Your task to perform on an android device: find which apps use the phone's location Image 0: 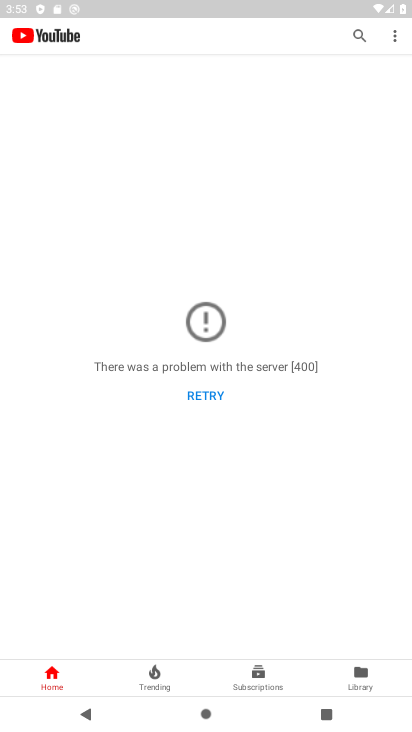
Step 0: press home button
Your task to perform on an android device: find which apps use the phone's location Image 1: 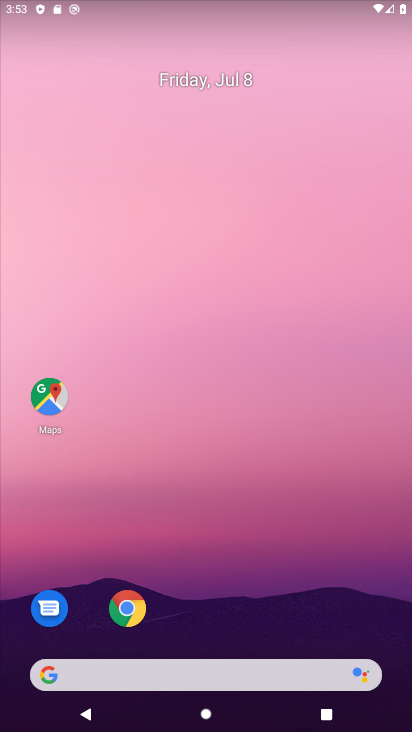
Step 1: drag from (268, 517) to (280, 59)
Your task to perform on an android device: find which apps use the phone's location Image 2: 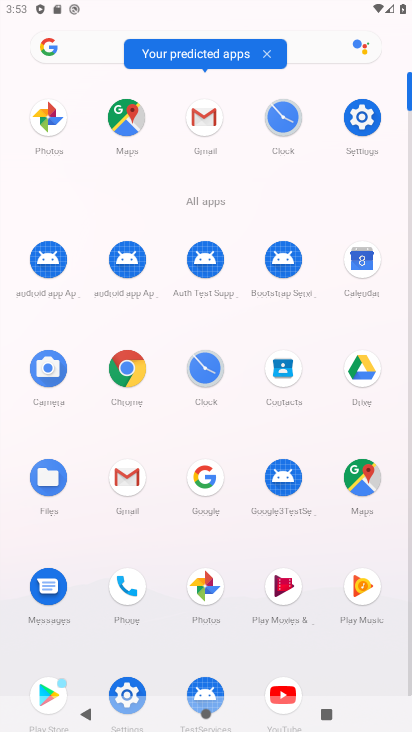
Step 2: click (351, 124)
Your task to perform on an android device: find which apps use the phone's location Image 3: 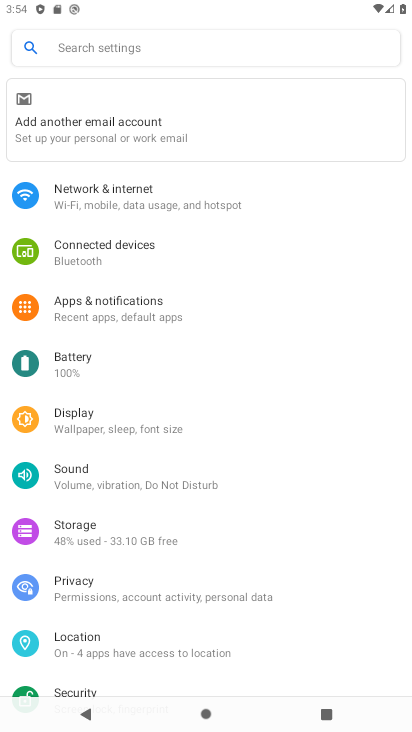
Step 3: click (81, 643)
Your task to perform on an android device: find which apps use the phone's location Image 4: 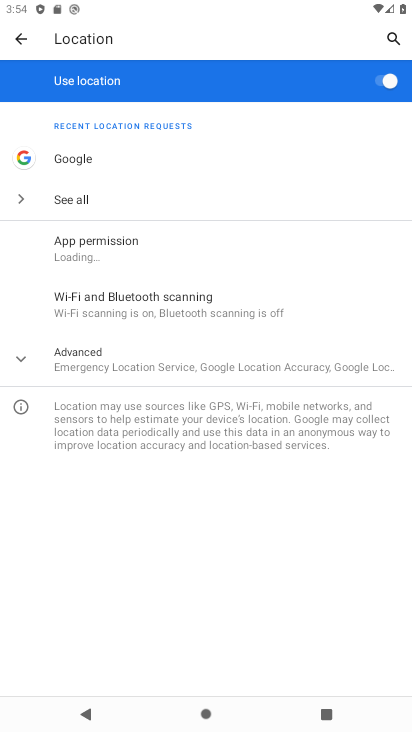
Step 4: click (105, 246)
Your task to perform on an android device: find which apps use the phone's location Image 5: 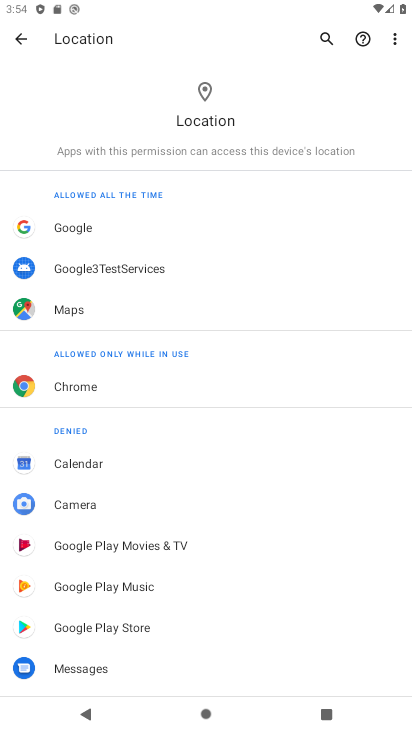
Step 5: task complete